Your task to perform on an android device: Go to battery settings Image 0: 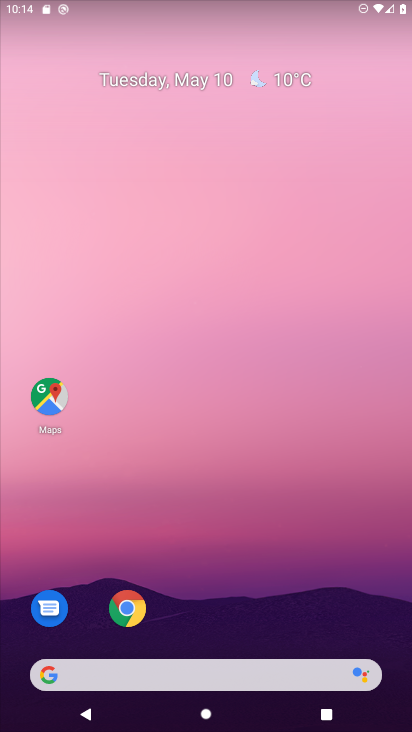
Step 0: drag from (332, 611) to (259, 102)
Your task to perform on an android device: Go to battery settings Image 1: 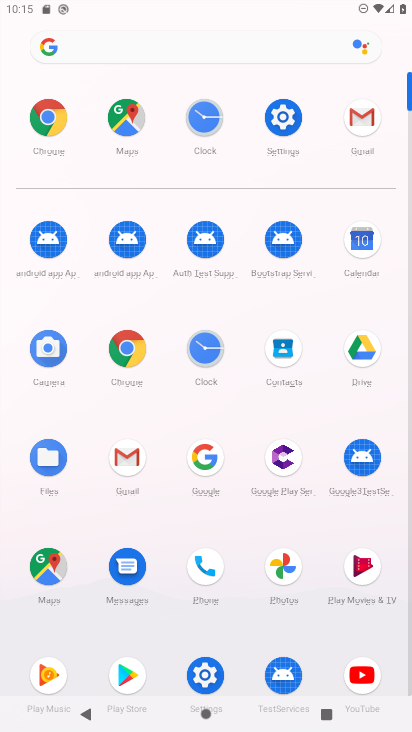
Step 1: click (205, 670)
Your task to perform on an android device: Go to battery settings Image 2: 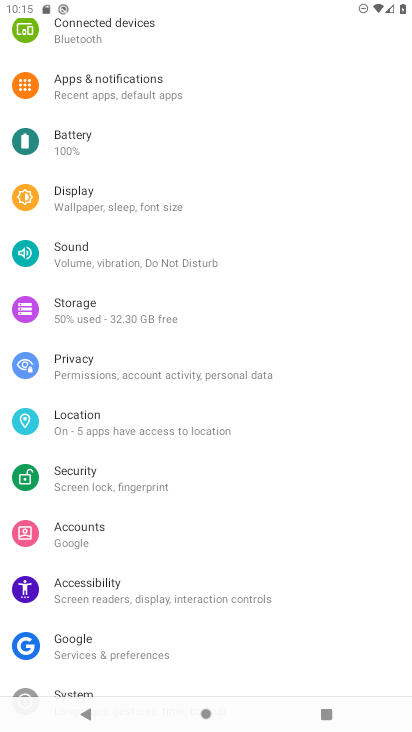
Step 2: click (97, 136)
Your task to perform on an android device: Go to battery settings Image 3: 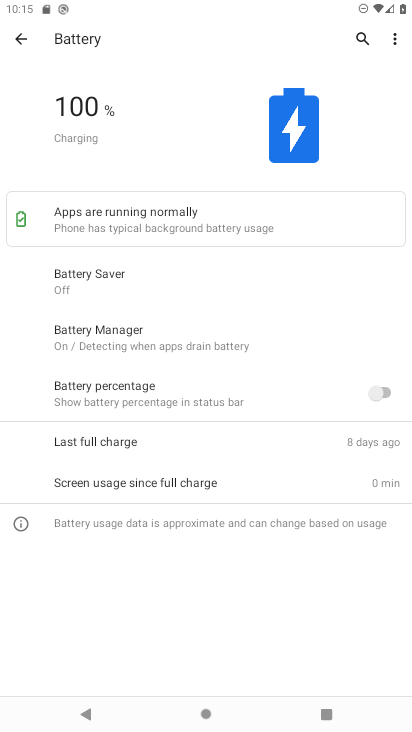
Step 3: task complete